Your task to perform on an android device: delete location history Image 0: 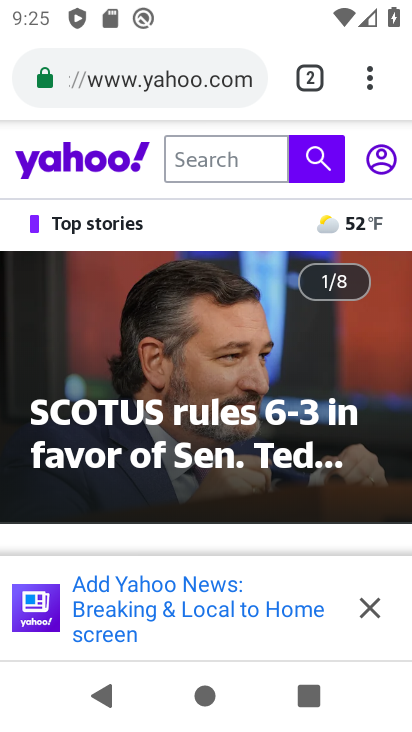
Step 0: press home button
Your task to perform on an android device: delete location history Image 1: 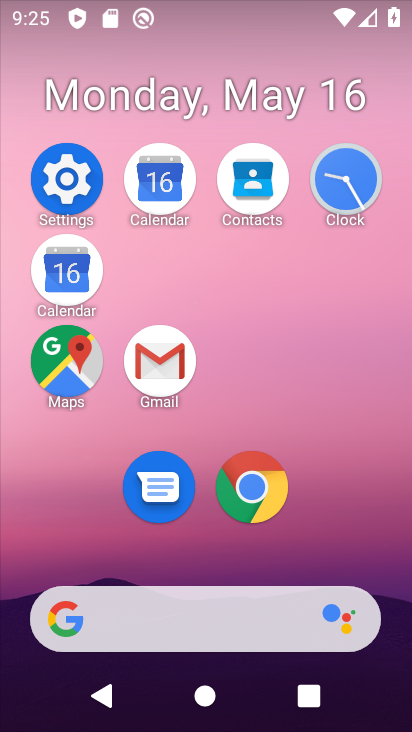
Step 1: click (68, 188)
Your task to perform on an android device: delete location history Image 2: 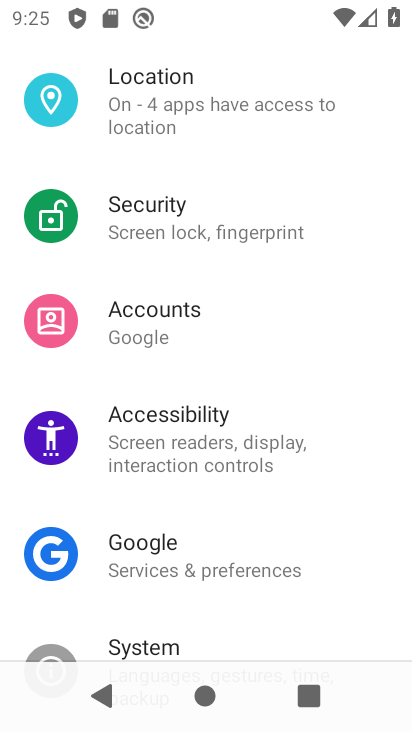
Step 2: drag from (235, 530) to (236, 208)
Your task to perform on an android device: delete location history Image 3: 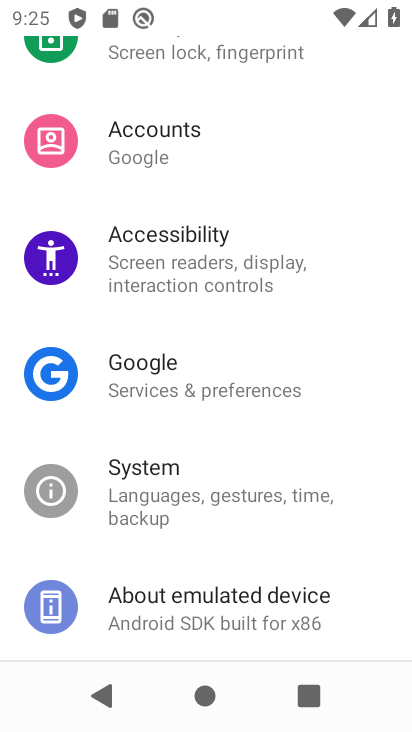
Step 3: drag from (268, 263) to (277, 525)
Your task to perform on an android device: delete location history Image 4: 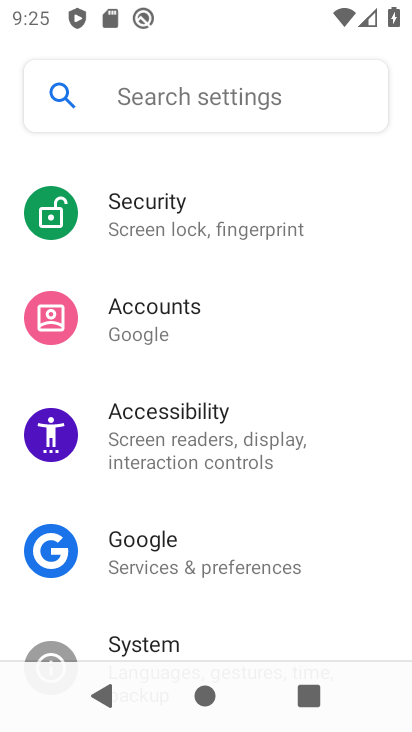
Step 4: drag from (269, 243) to (270, 501)
Your task to perform on an android device: delete location history Image 5: 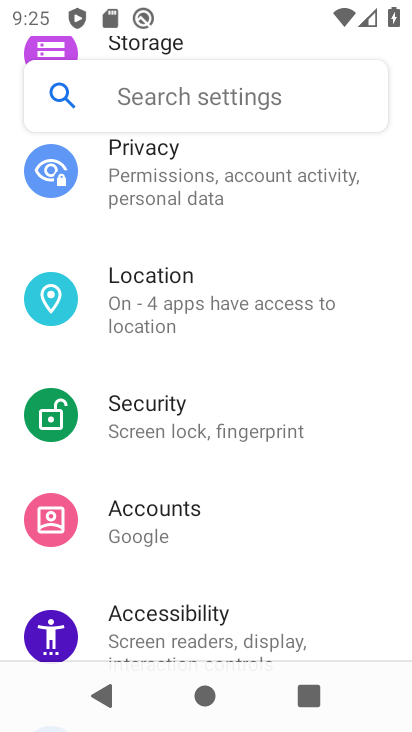
Step 5: click (225, 293)
Your task to perform on an android device: delete location history Image 6: 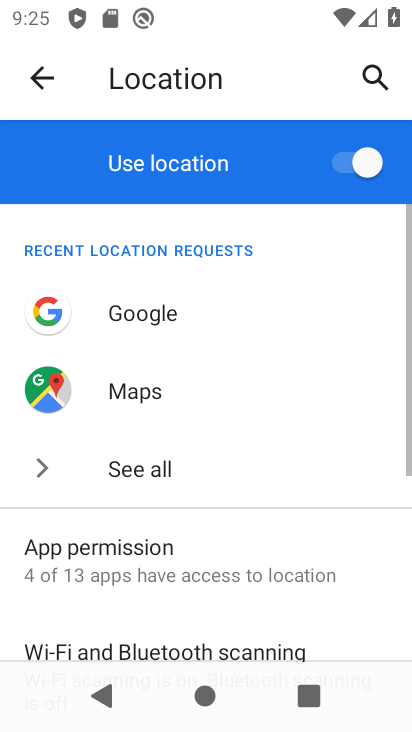
Step 6: drag from (190, 402) to (198, 185)
Your task to perform on an android device: delete location history Image 7: 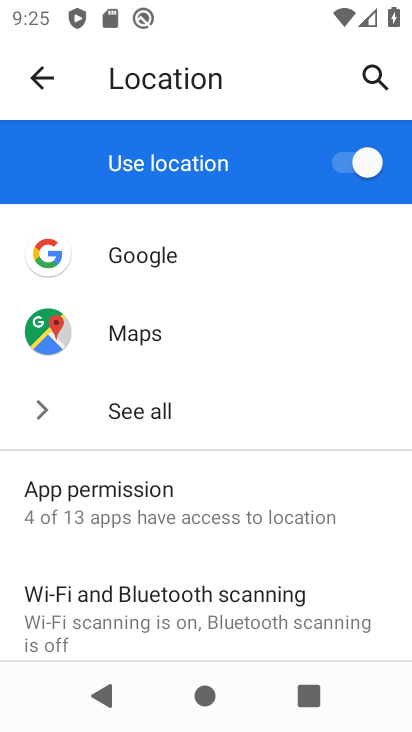
Step 7: drag from (207, 570) to (213, 221)
Your task to perform on an android device: delete location history Image 8: 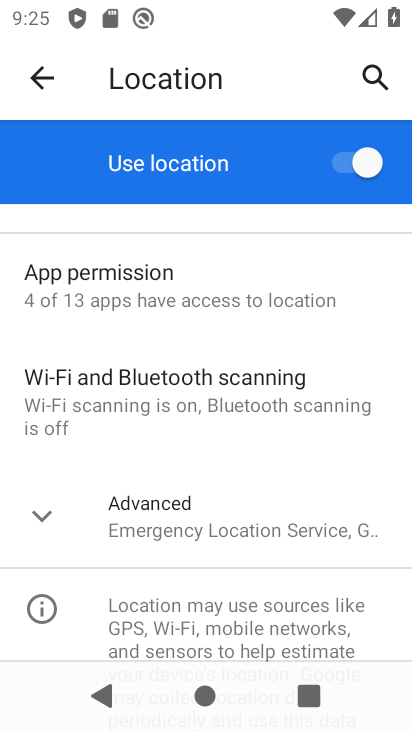
Step 8: click (167, 502)
Your task to perform on an android device: delete location history Image 9: 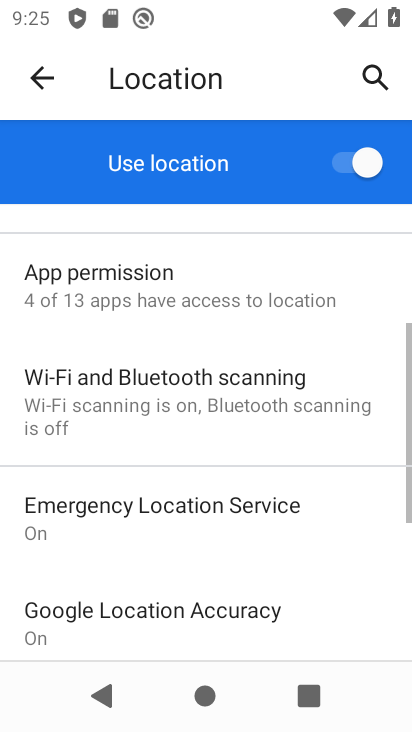
Step 9: drag from (167, 502) to (159, 178)
Your task to perform on an android device: delete location history Image 10: 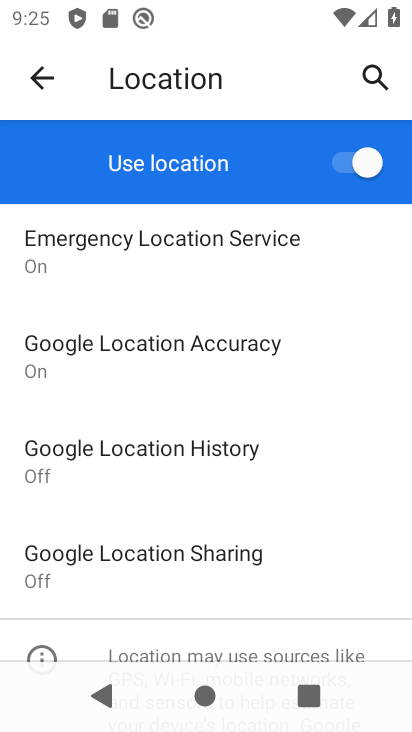
Step 10: click (193, 439)
Your task to perform on an android device: delete location history Image 11: 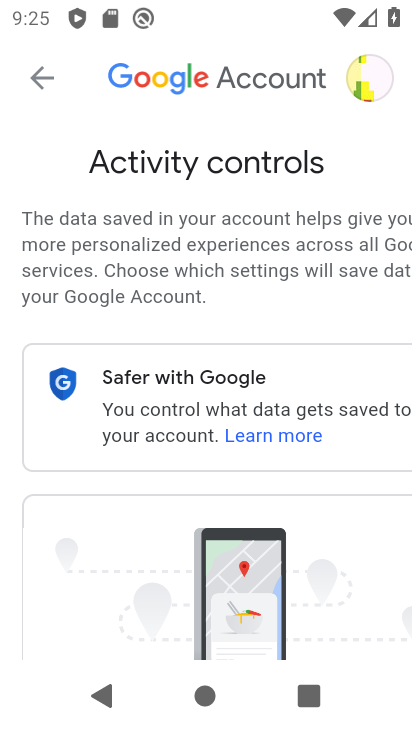
Step 11: drag from (177, 408) to (199, 99)
Your task to perform on an android device: delete location history Image 12: 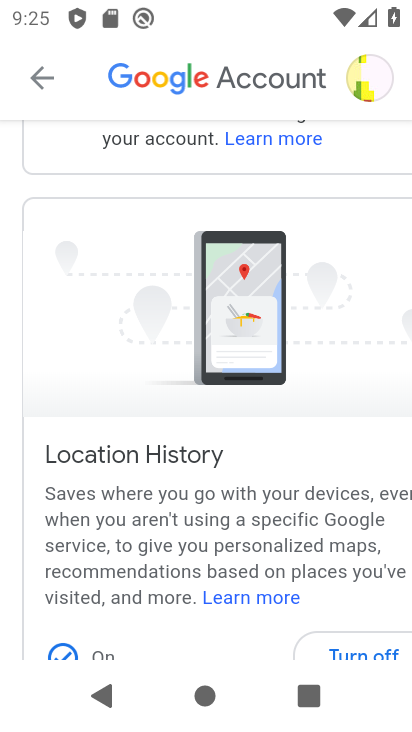
Step 12: drag from (239, 509) to (230, 127)
Your task to perform on an android device: delete location history Image 13: 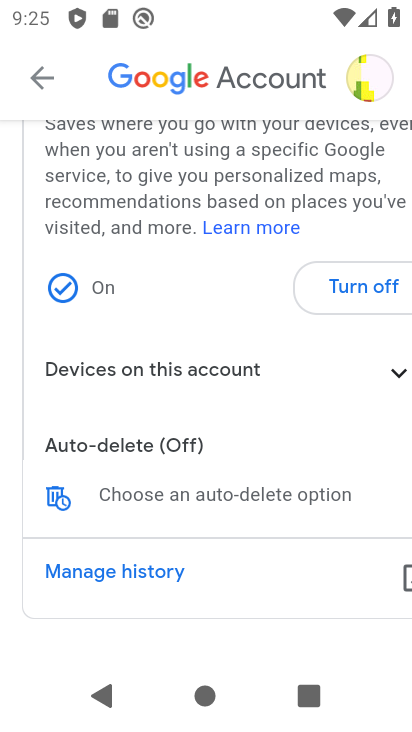
Step 13: click (224, 511)
Your task to perform on an android device: delete location history Image 14: 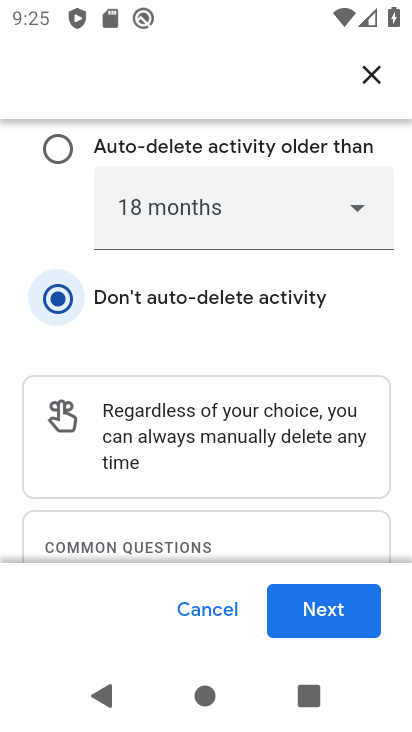
Step 14: drag from (284, 518) to (282, 160)
Your task to perform on an android device: delete location history Image 15: 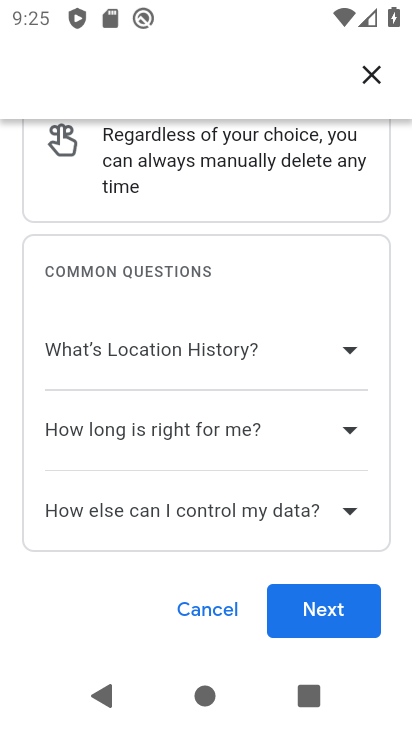
Step 15: click (341, 593)
Your task to perform on an android device: delete location history Image 16: 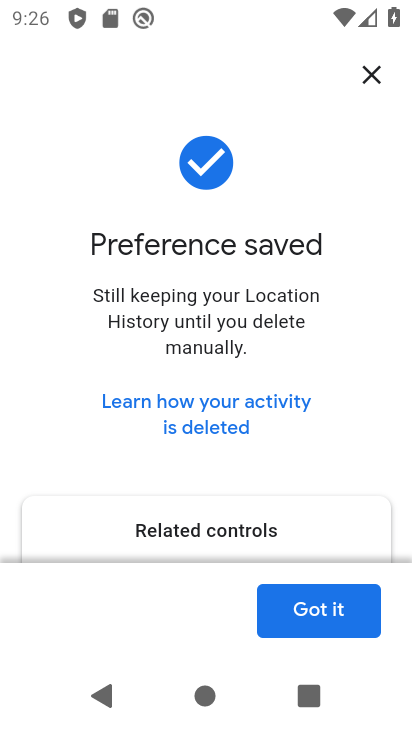
Step 16: click (348, 594)
Your task to perform on an android device: delete location history Image 17: 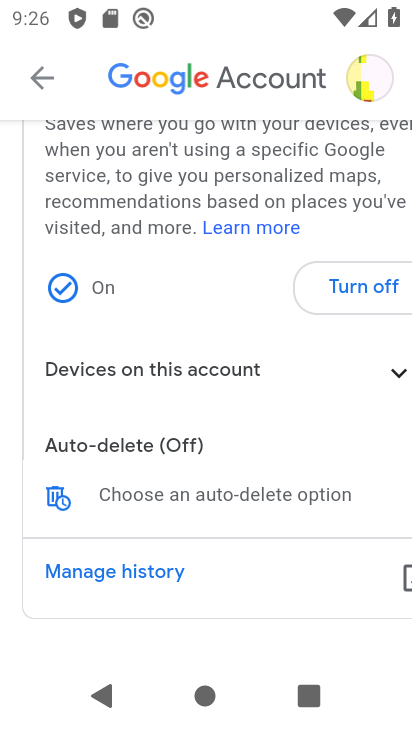
Step 17: task complete